Your task to perform on an android device: Open sound settings Image 0: 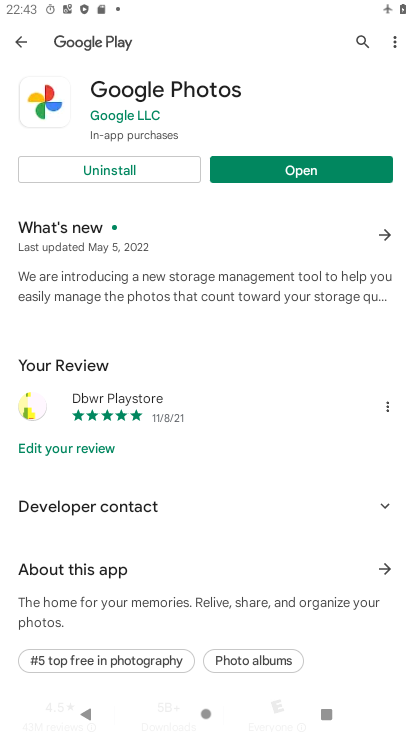
Step 0: press home button
Your task to perform on an android device: Open sound settings Image 1: 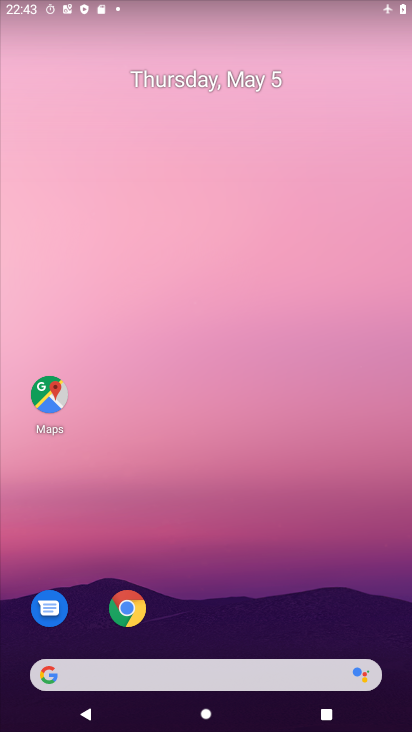
Step 1: drag from (232, 630) to (208, 1)
Your task to perform on an android device: Open sound settings Image 2: 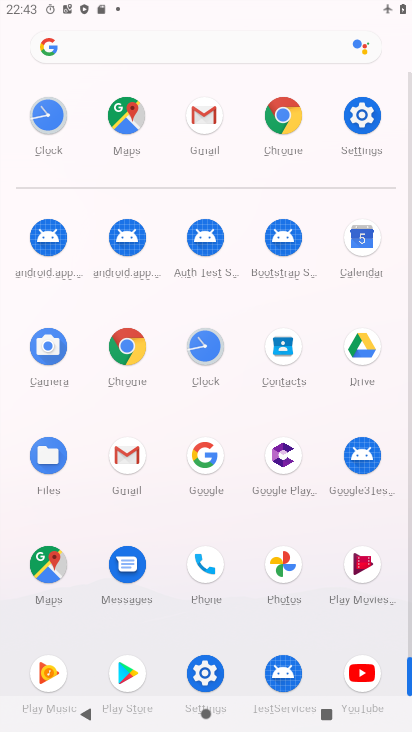
Step 2: click (356, 119)
Your task to perform on an android device: Open sound settings Image 3: 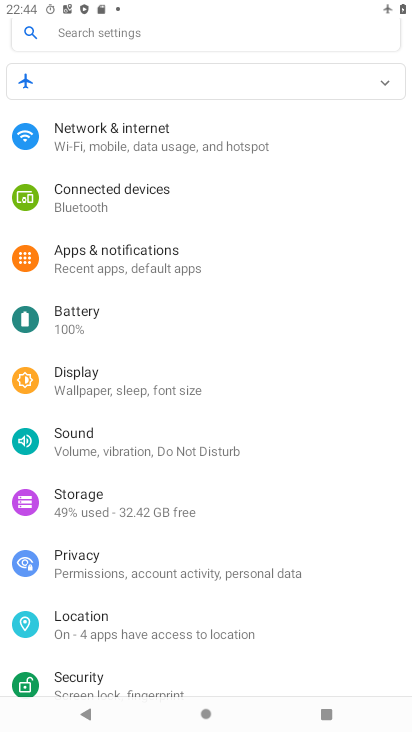
Step 3: click (188, 429)
Your task to perform on an android device: Open sound settings Image 4: 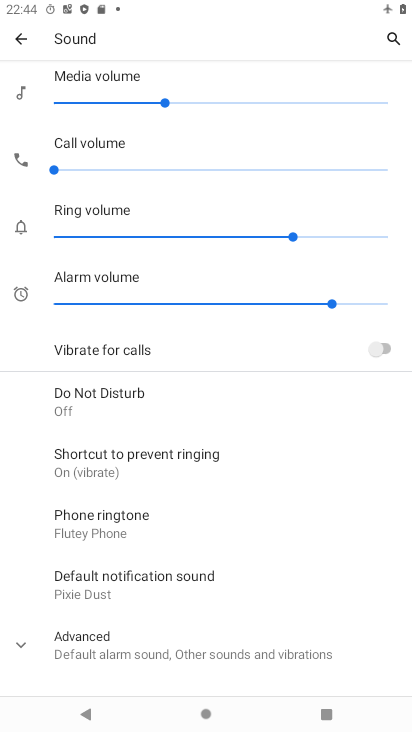
Step 4: task complete